Your task to perform on an android device: Open Yahoo.com Image 0: 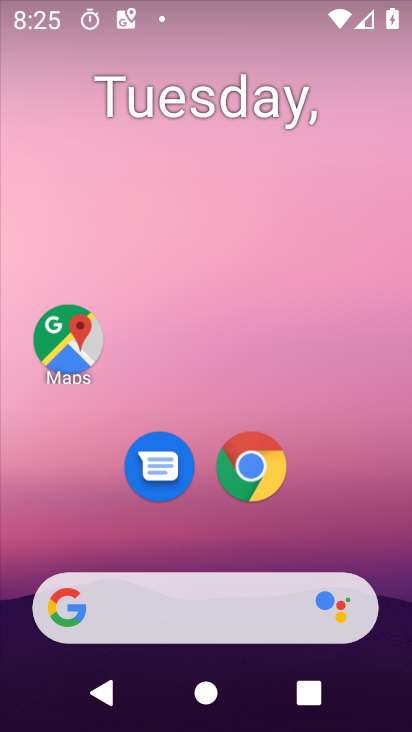
Step 0: click (244, 467)
Your task to perform on an android device: Open Yahoo.com Image 1: 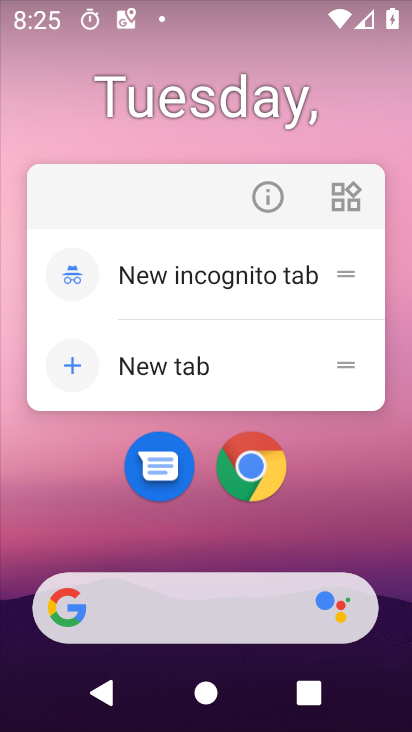
Step 1: click (243, 467)
Your task to perform on an android device: Open Yahoo.com Image 2: 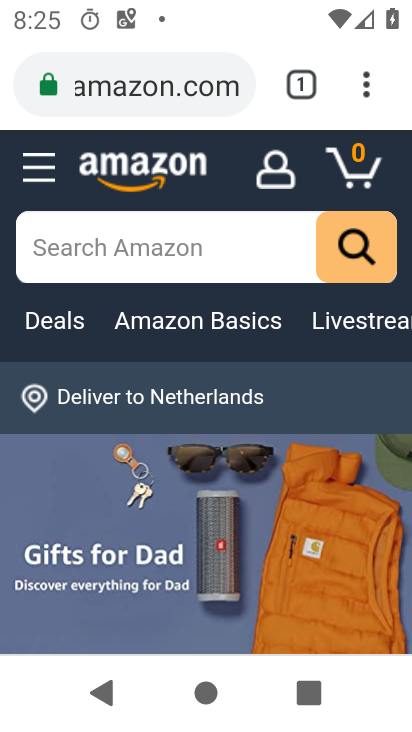
Step 2: click (181, 84)
Your task to perform on an android device: Open Yahoo.com Image 3: 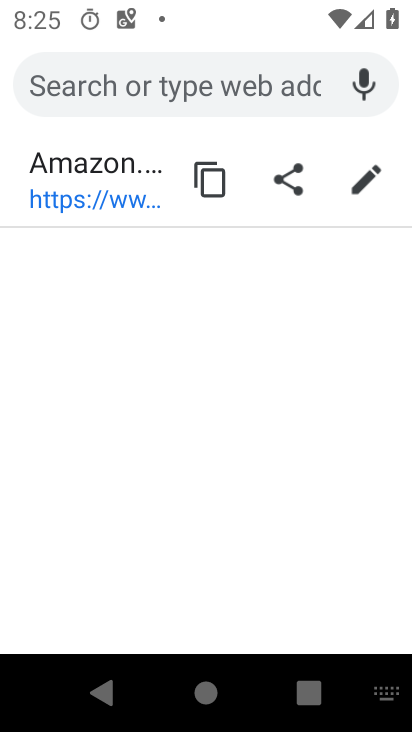
Step 3: type "Yahoo.com"
Your task to perform on an android device: Open Yahoo.com Image 4: 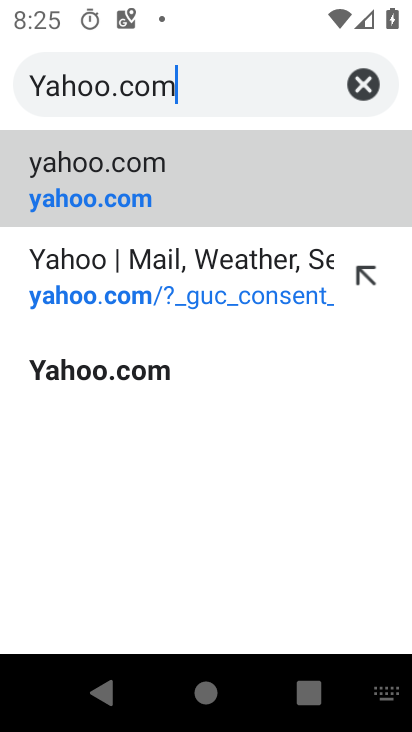
Step 4: click (82, 168)
Your task to perform on an android device: Open Yahoo.com Image 5: 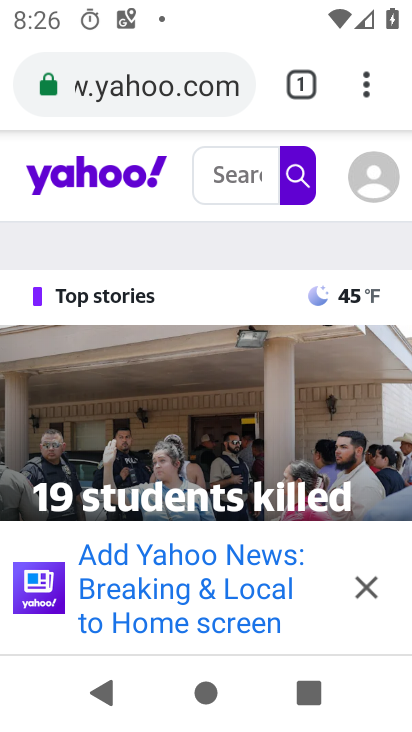
Step 5: task complete